Your task to perform on an android device: change the clock display to analog Image 0: 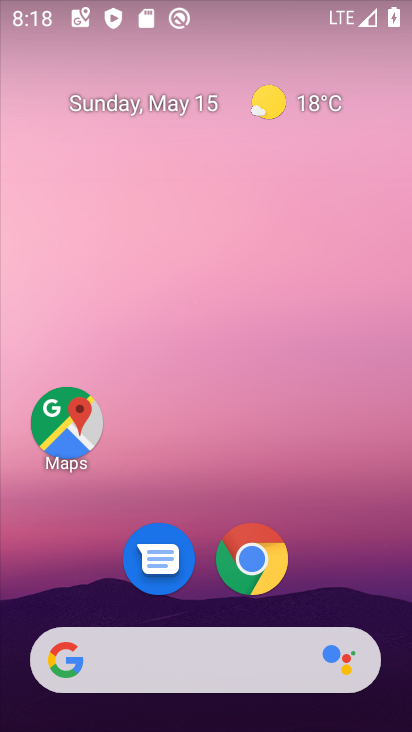
Step 0: drag from (272, 473) to (104, 45)
Your task to perform on an android device: change the clock display to analog Image 1: 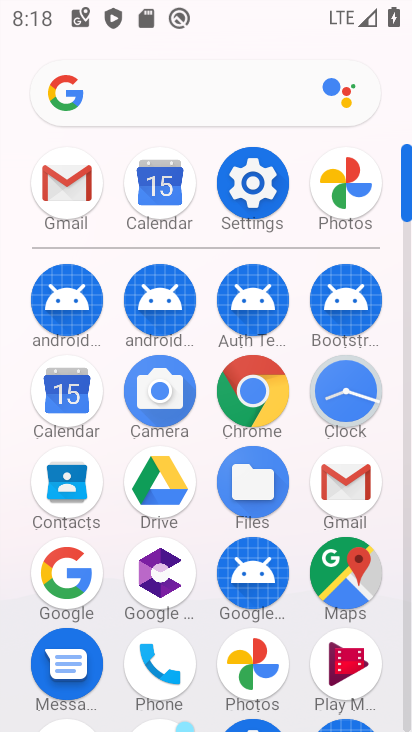
Step 1: click (346, 393)
Your task to perform on an android device: change the clock display to analog Image 2: 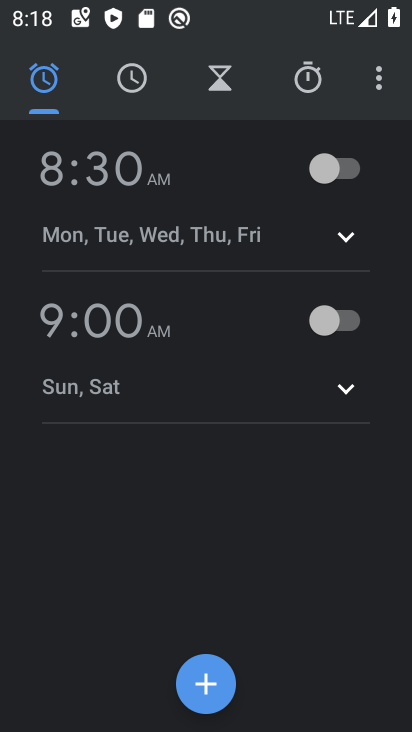
Step 2: click (376, 81)
Your task to perform on an android device: change the clock display to analog Image 3: 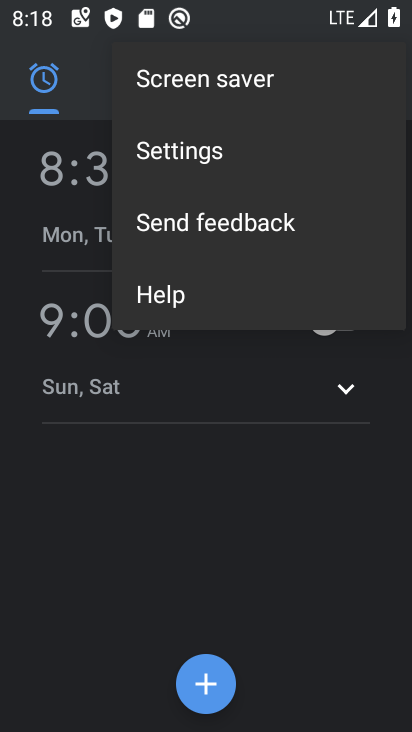
Step 3: click (206, 152)
Your task to perform on an android device: change the clock display to analog Image 4: 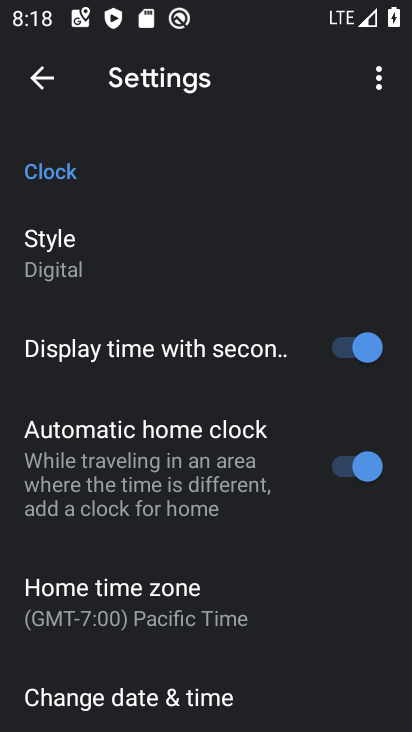
Step 4: click (55, 240)
Your task to perform on an android device: change the clock display to analog Image 5: 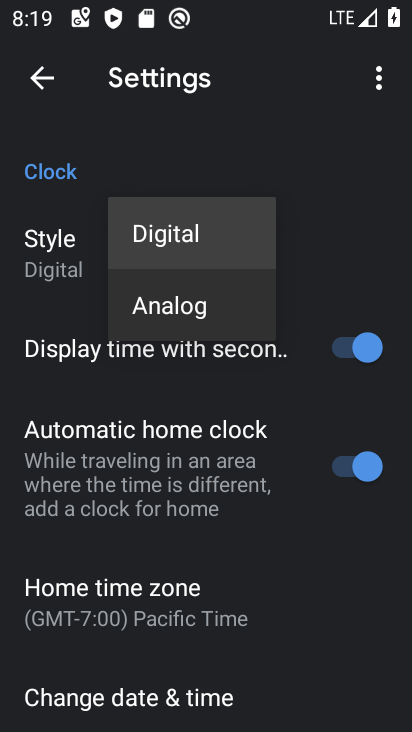
Step 5: click (148, 306)
Your task to perform on an android device: change the clock display to analog Image 6: 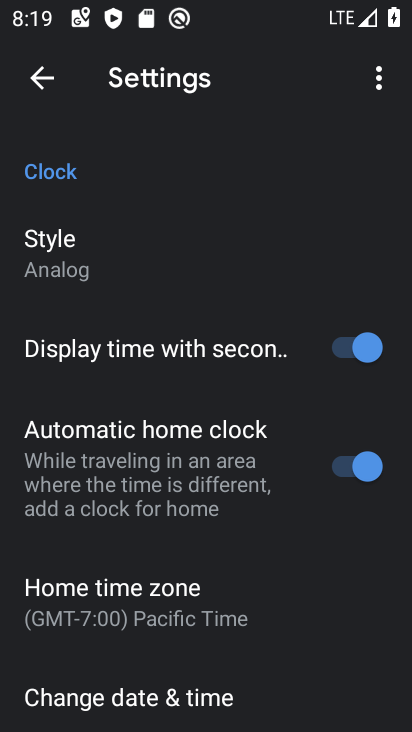
Step 6: task complete